Your task to perform on an android device: make emails show in primary in the gmail app Image 0: 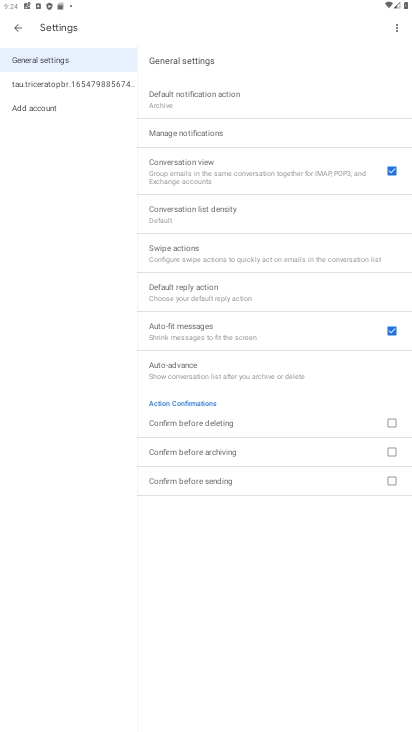
Step 0: click (80, 85)
Your task to perform on an android device: make emails show in primary in the gmail app Image 1: 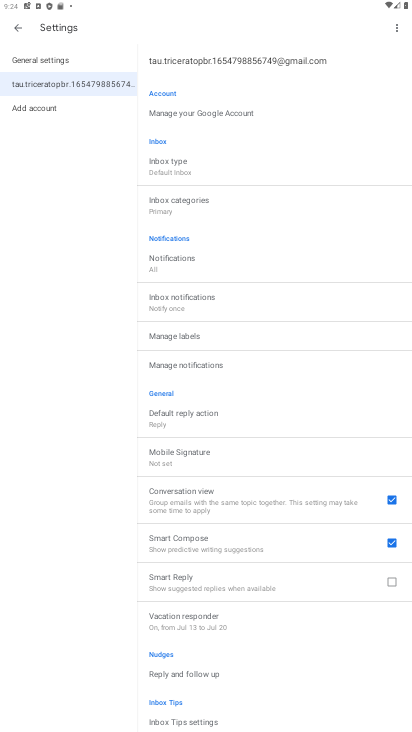
Step 1: task complete